Your task to perform on an android device: Open my contact list Image 0: 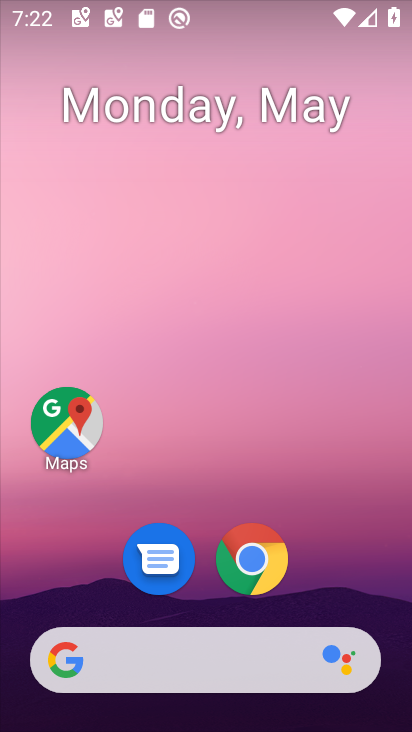
Step 0: drag from (400, 648) to (375, 22)
Your task to perform on an android device: Open my contact list Image 1: 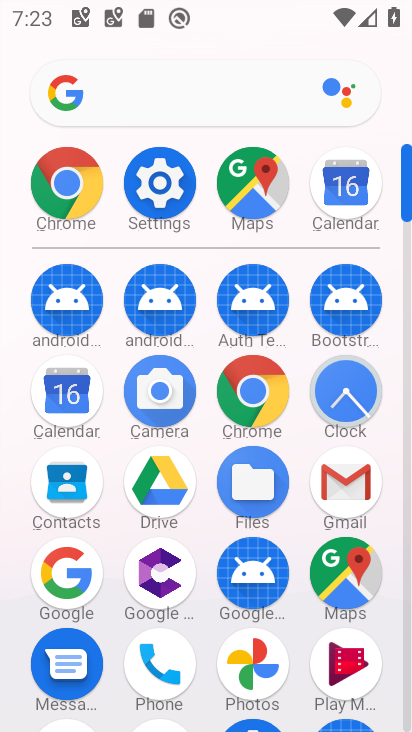
Step 1: click (72, 477)
Your task to perform on an android device: Open my contact list Image 2: 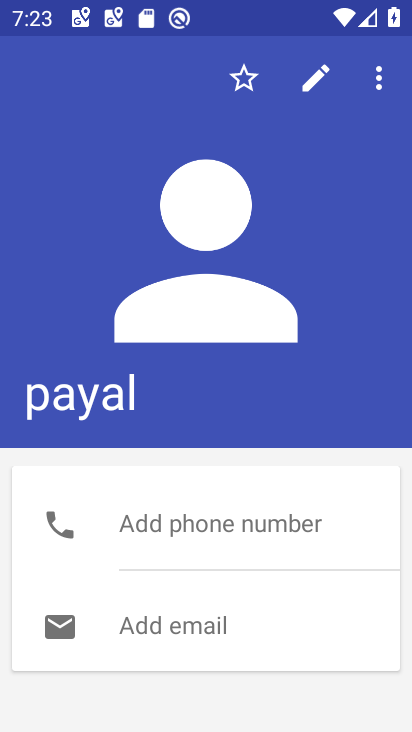
Step 2: press back button
Your task to perform on an android device: Open my contact list Image 3: 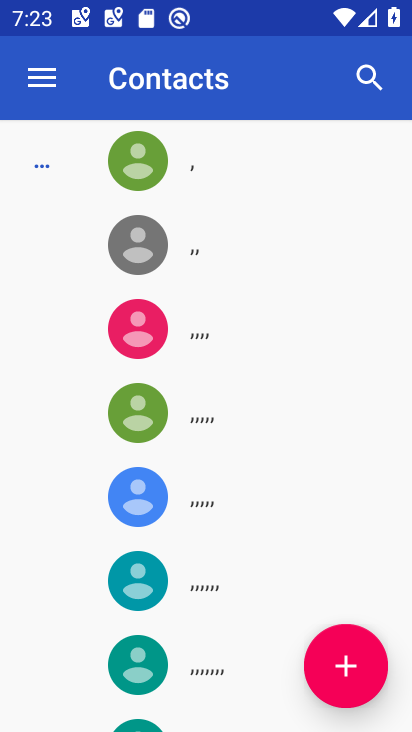
Step 3: drag from (197, 554) to (234, 63)
Your task to perform on an android device: Open my contact list Image 4: 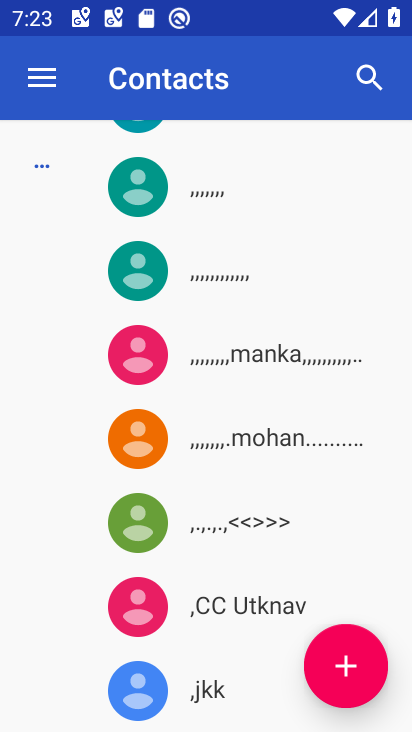
Step 4: click (57, 73)
Your task to perform on an android device: Open my contact list Image 5: 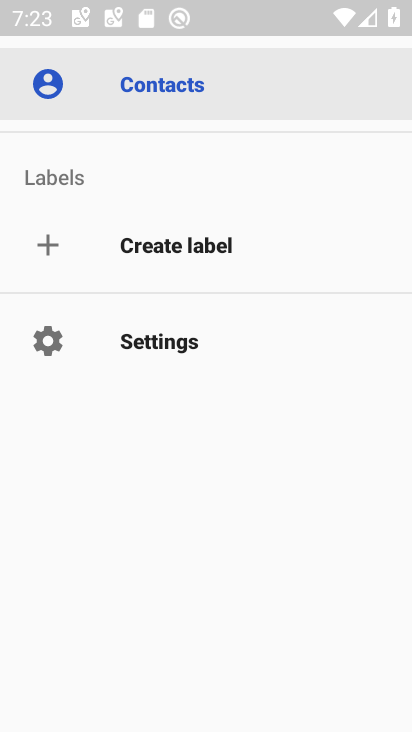
Step 5: click (160, 89)
Your task to perform on an android device: Open my contact list Image 6: 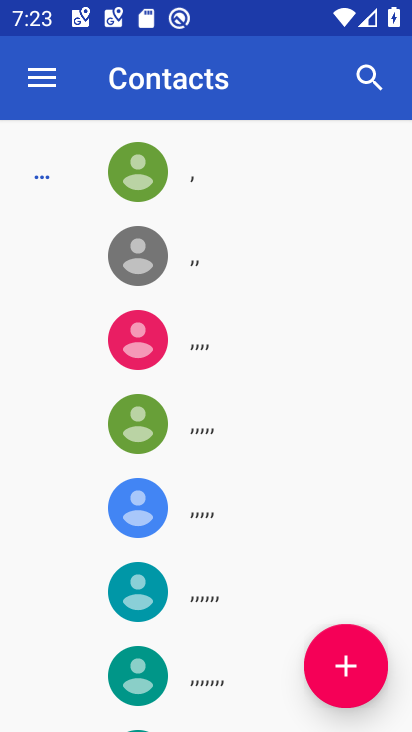
Step 6: task complete